Your task to perform on an android device: turn off airplane mode Image 0: 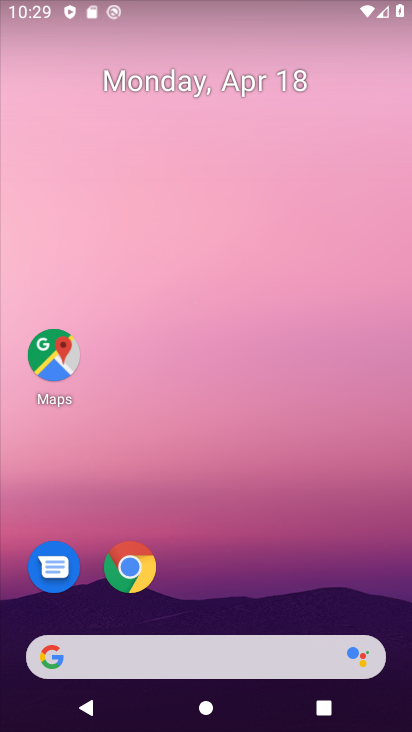
Step 0: drag from (206, 570) to (228, 242)
Your task to perform on an android device: turn off airplane mode Image 1: 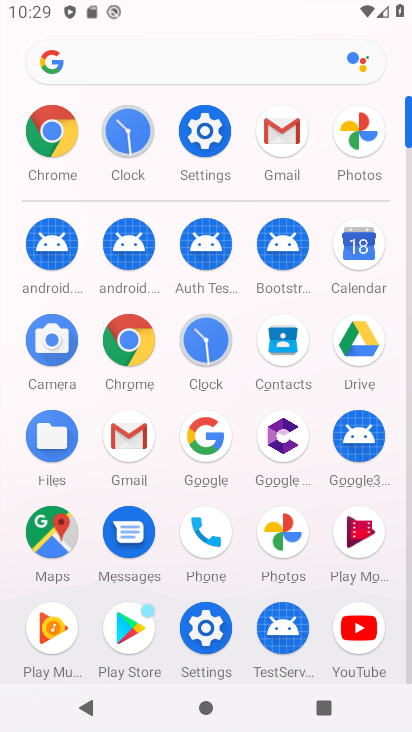
Step 1: click (212, 130)
Your task to perform on an android device: turn off airplane mode Image 2: 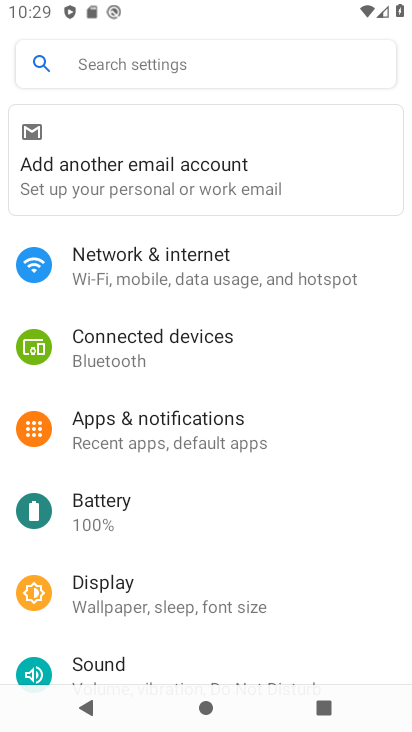
Step 2: click (221, 283)
Your task to perform on an android device: turn off airplane mode Image 3: 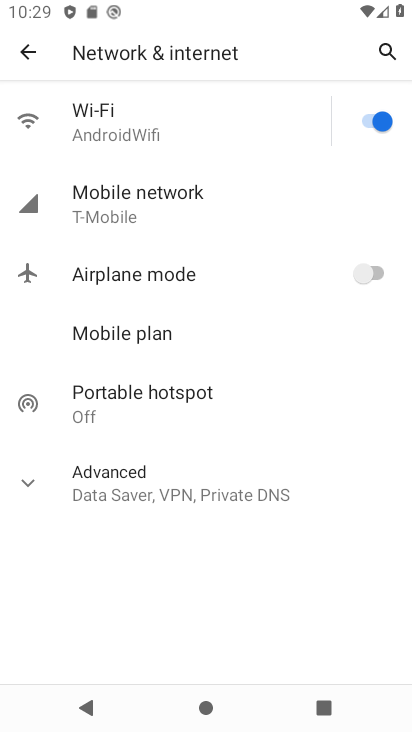
Step 3: task complete